Your task to perform on an android device: change your default location settings in chrome Image 0: 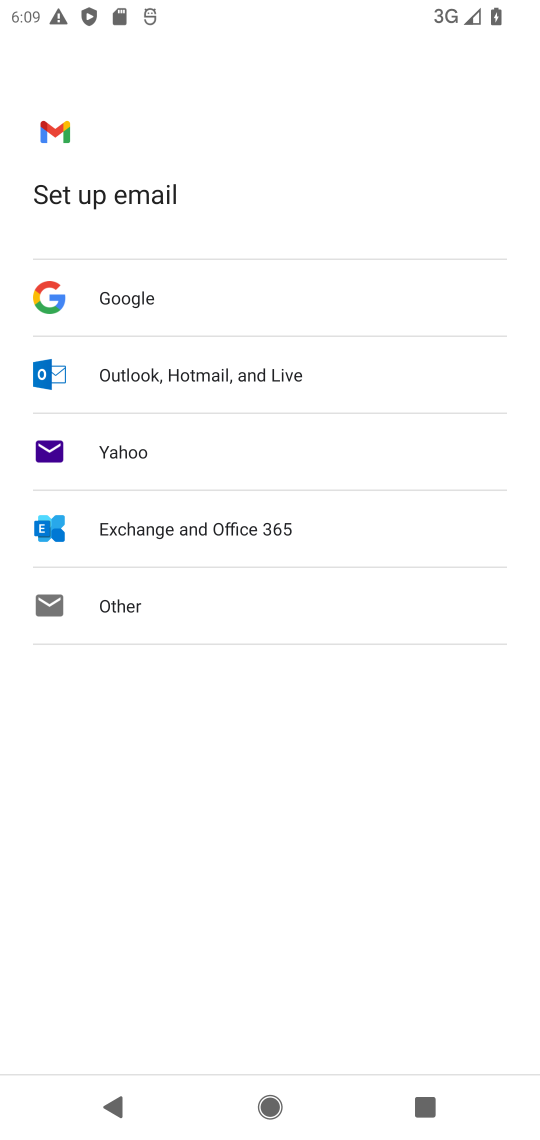
Step 0: press home button
Your task to perform on an android device: change your default location settings in chrome Image 1: 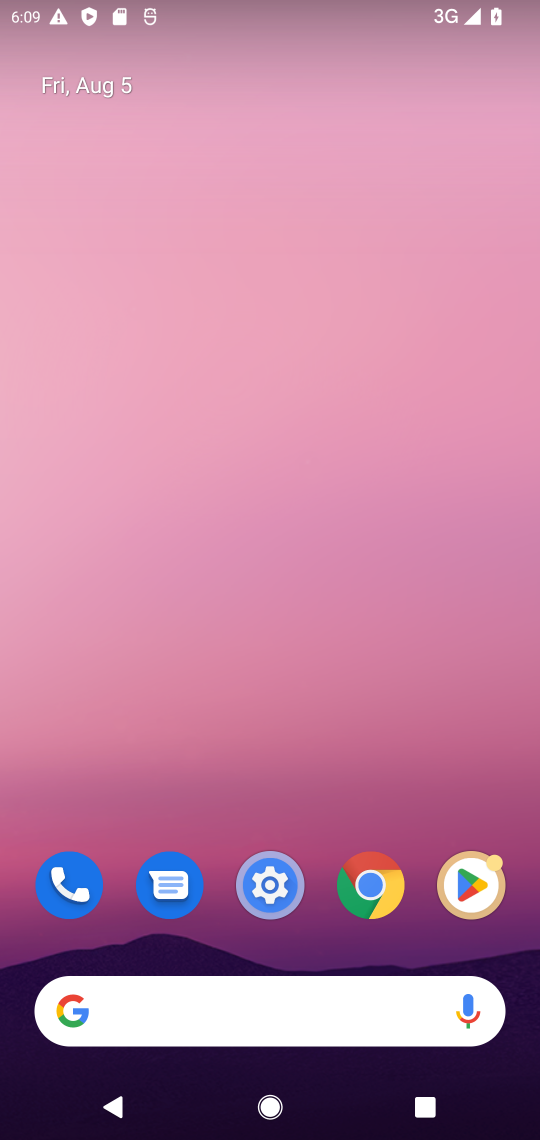
Step 1: click (363, 907)
Your task to perform on an android device: change your default location settings in chrome Image 2: 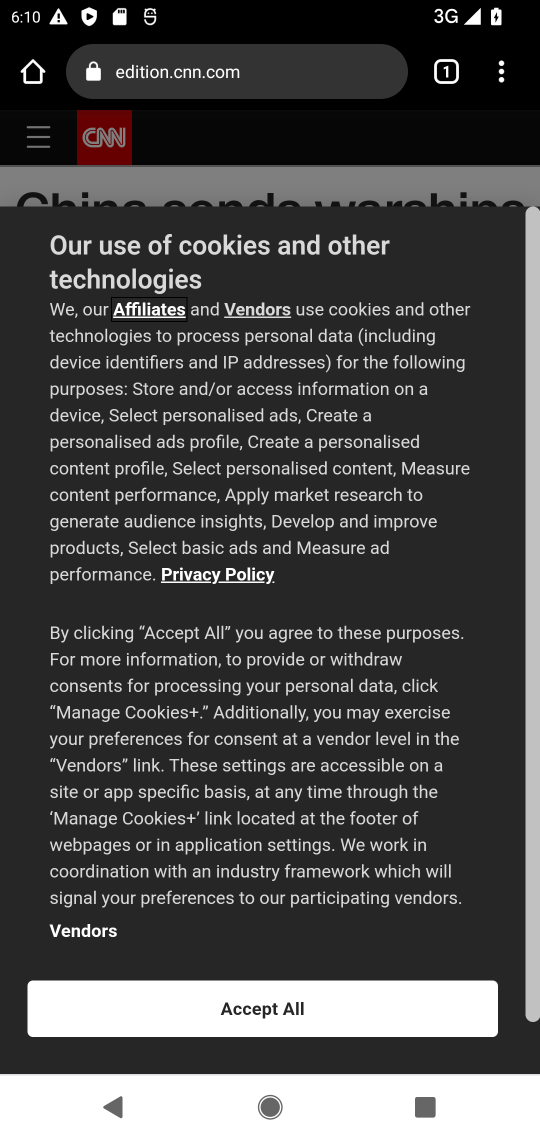
Step 2: click (497, 76)
Your task to perform on an android device: change your default location settings in chrome Image 3: 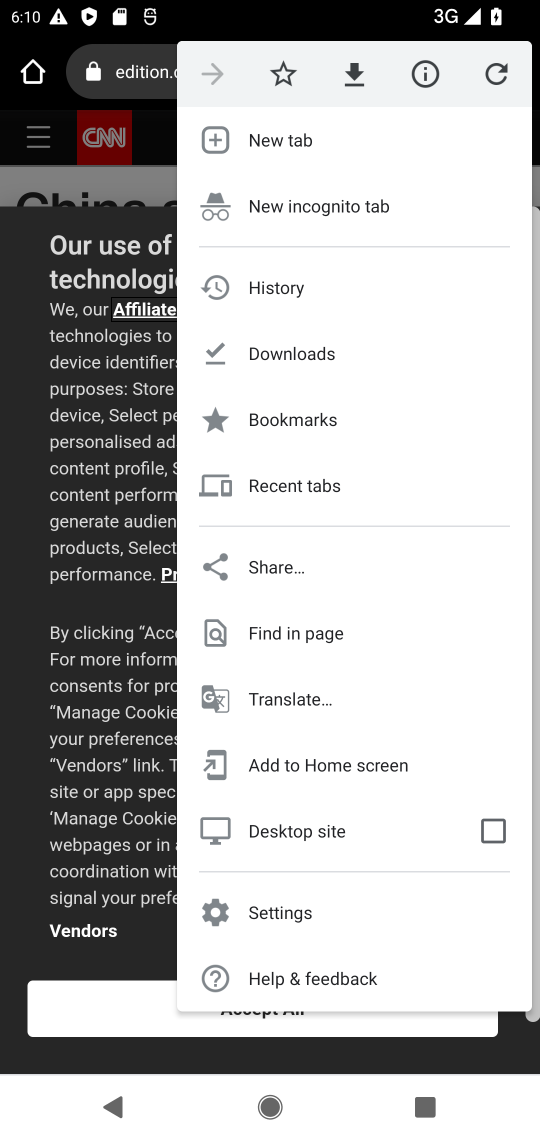
Step 3: click (292, 912)
Your task to perform on an android device: change your default location settings in chrome Image 4: 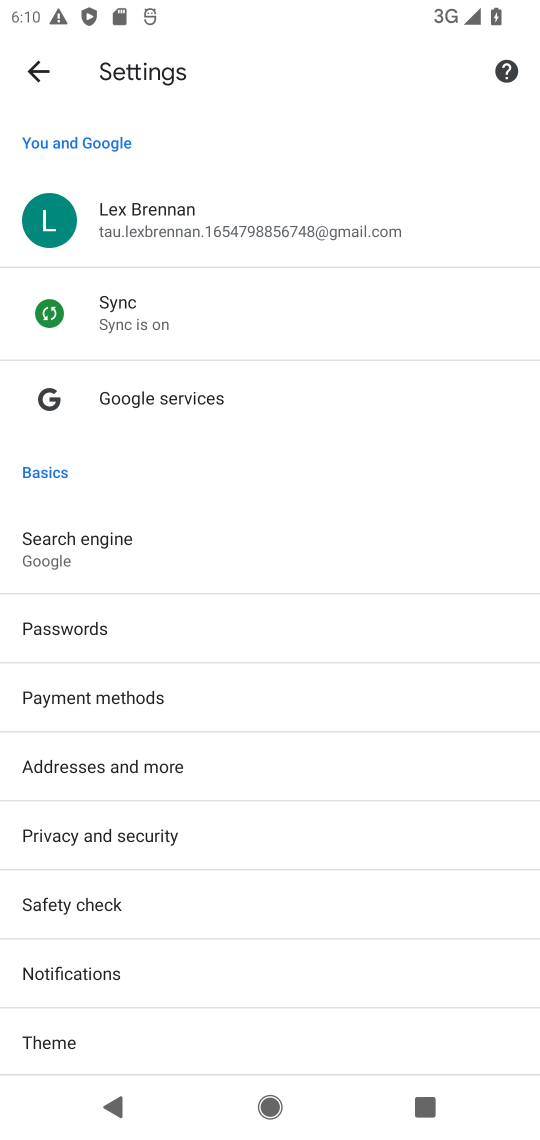
Step 4: drag from (115, 989) to (157, 583)
Your task to perform on an android device: change your default location settings in chrome Image 5: 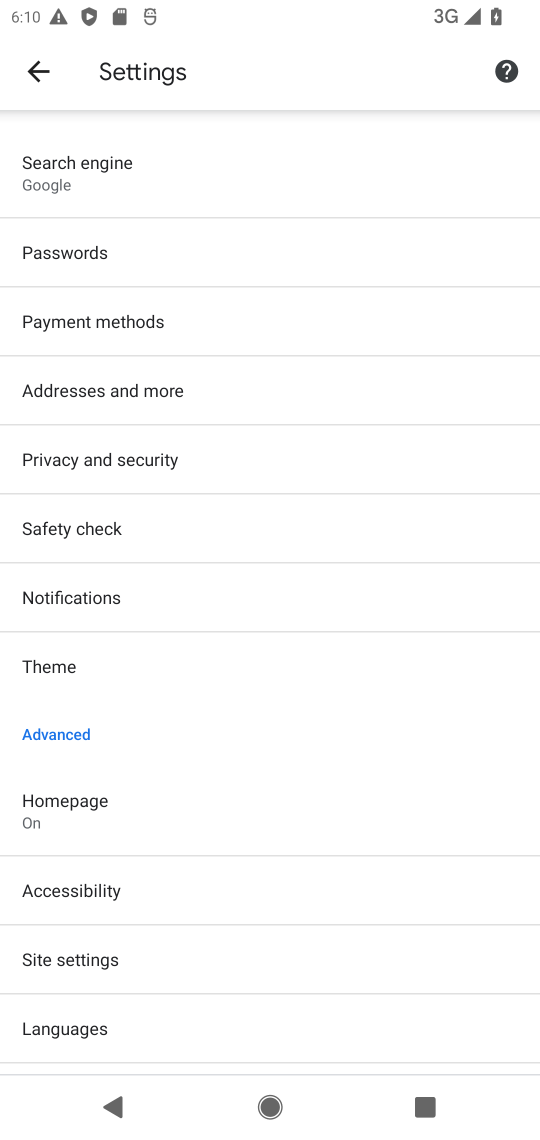
Step 5: click (95, 974)
Your task to perform on an android device: change your default location settings in chrome Image 6: 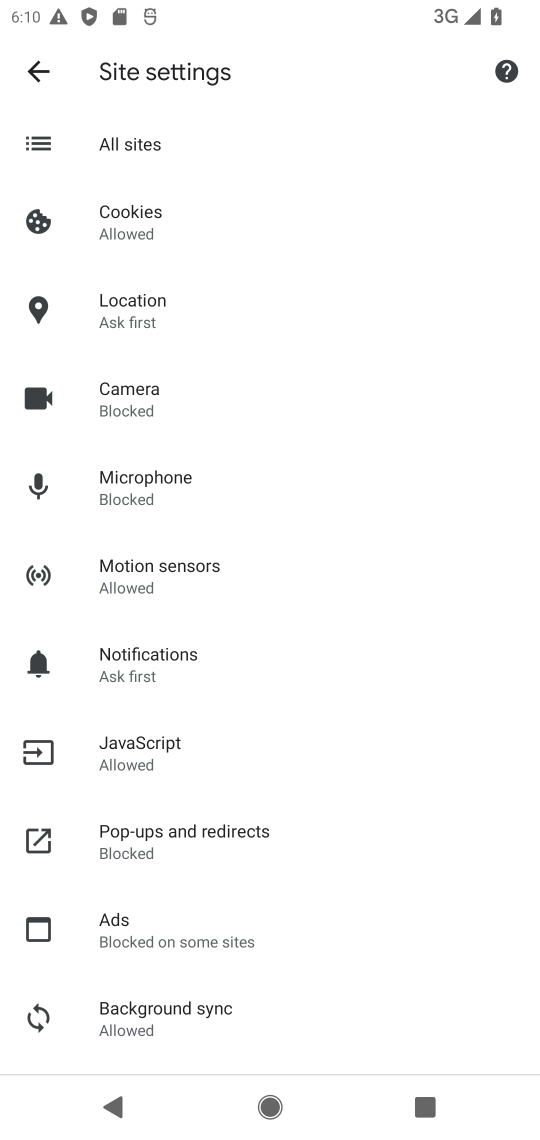
Step 6: click (151, 317)
Your task to perform on an android device: change your default location settings in chrome Image 7: 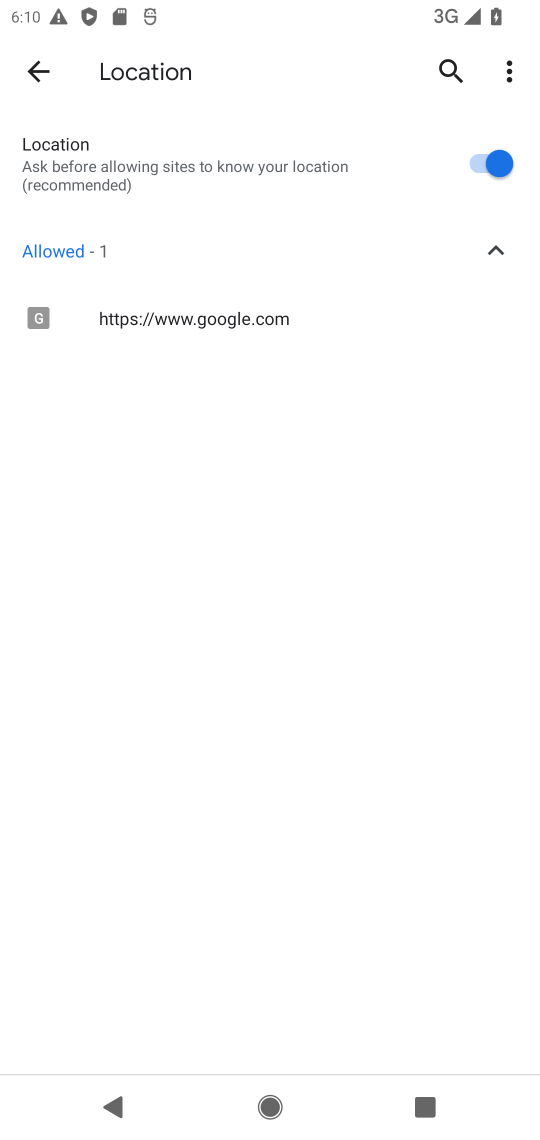
Step 7: click (440, 167)
Your task to perform on an android device: change your default location settings in chrome Image 8: 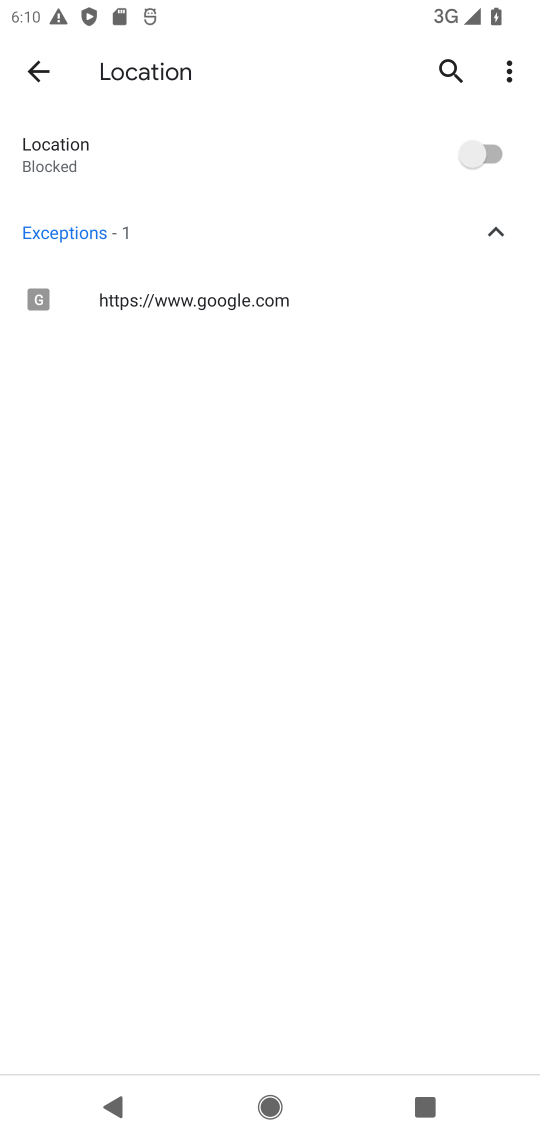
Step 8: task complete